Your task to perform on an android device: turn off notifications in google photos Image 0: 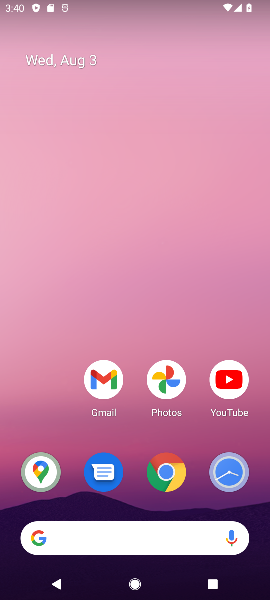
Step 0: click (158, 387)
Your task to perform on an android device: turn off notifications in google photos Image 1: 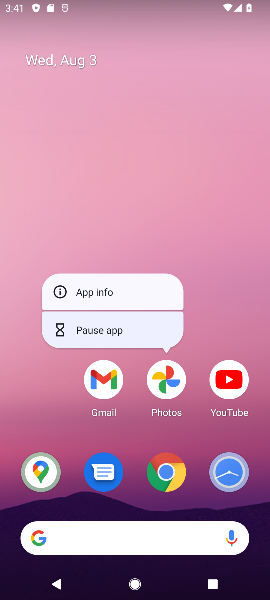
Step 1: click (167, 375)
Your task to perform on an android device: turn off notifications in google photos Image 2: 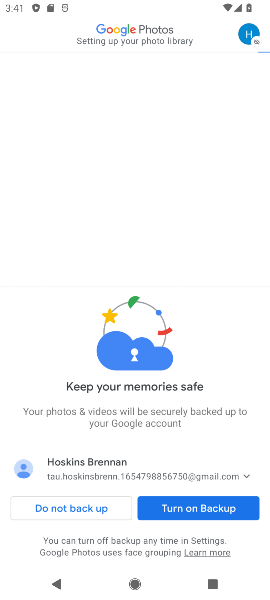
Step 2: drag from (167, 381) to (217, 141)
Your task to perform on an android device: turn off notifications in google photos Image 3: 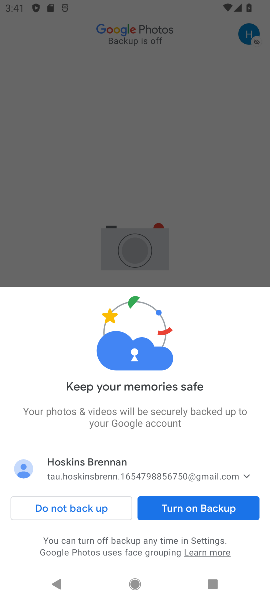
Step 3: press back button
Your task to perform on an android device: turn off notifications in google photos Image 4: 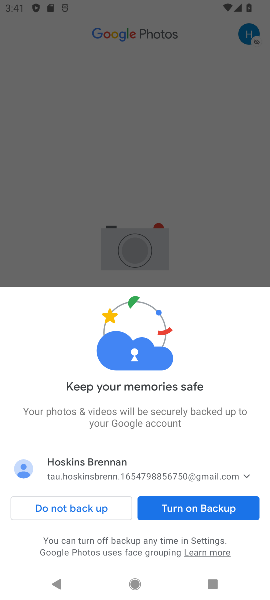
Step 4: press home button
Your task to perform on an android device: turn off notifications in google photos Image 5: 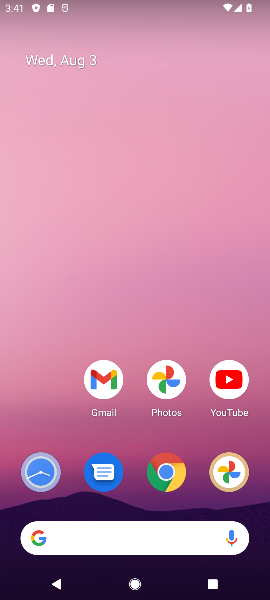
Step 5: click (175, 381)
Your task to perform on an android device: turn off notifications in google photos Image 6: 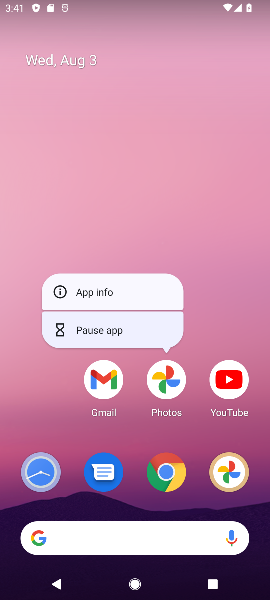
Step 6: click (102, 295)
Your task to perform on an android device: turn off notifications in google photos Image 7: 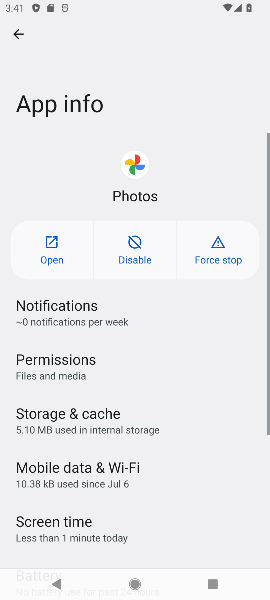
Step 7: click (100, 323)
Your task to perform on an android device: turn off notifications in google photos Image 8: 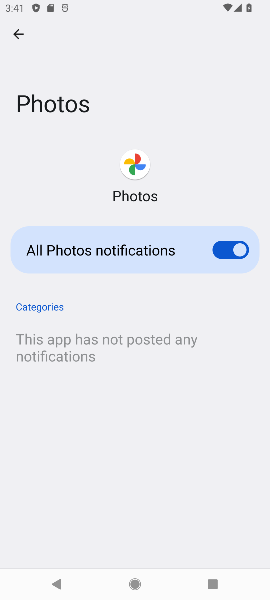
Step 8: click (238, 250)
Your task to perform on an android device: turn off notifications in google photos Image 9: 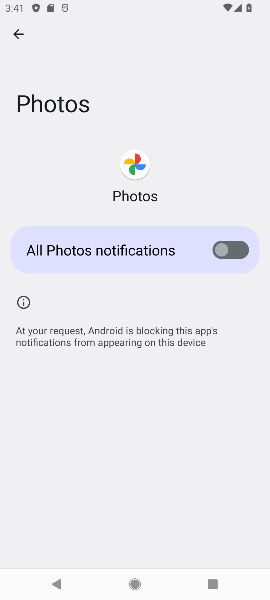
Step 9: task complete